Your task to perform on an android device: turn off airplane mode Image 0: 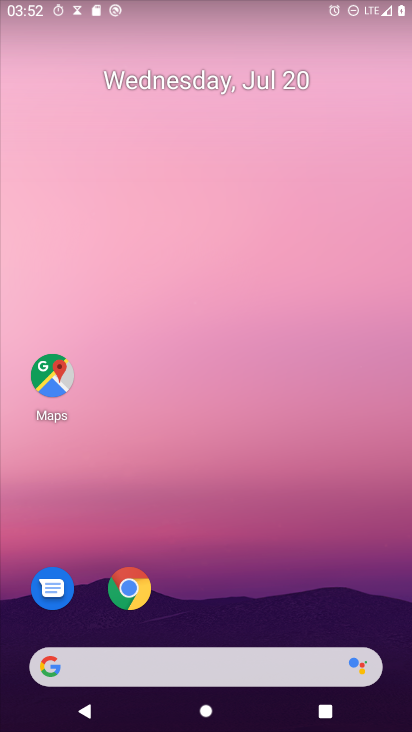
Step 0: drag from (190, 603) to (141, 60)
Your task to perform on an android device: turn off airplane mode Image 1: 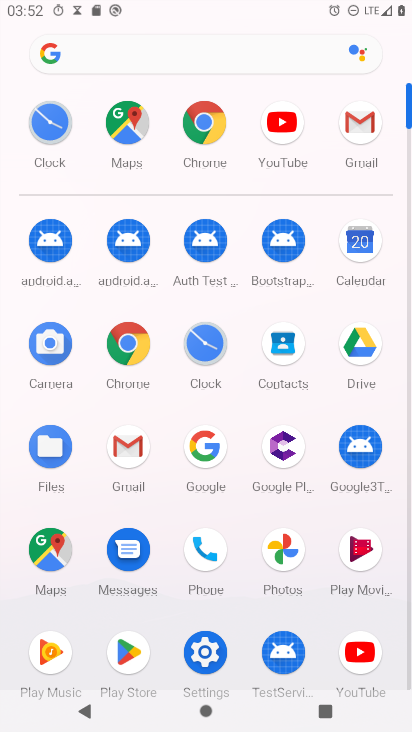
Step 1: click (207, 654)
Your task to perform on an android device: turn off airplane mode Image 2: 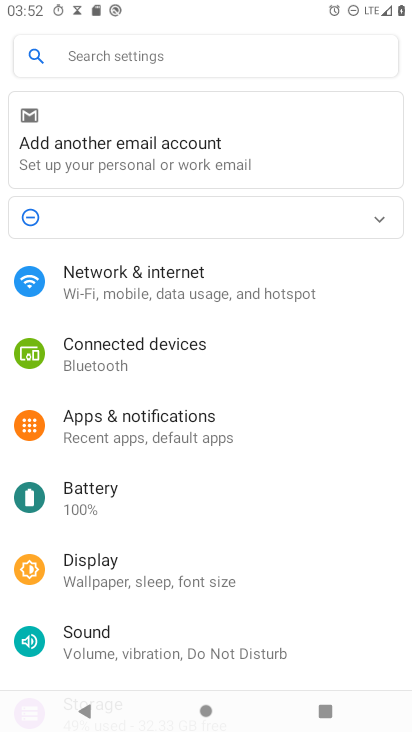
Step 2: click (186, 291)
Your task to perform on an android device: turn off airplane mode Image 3: 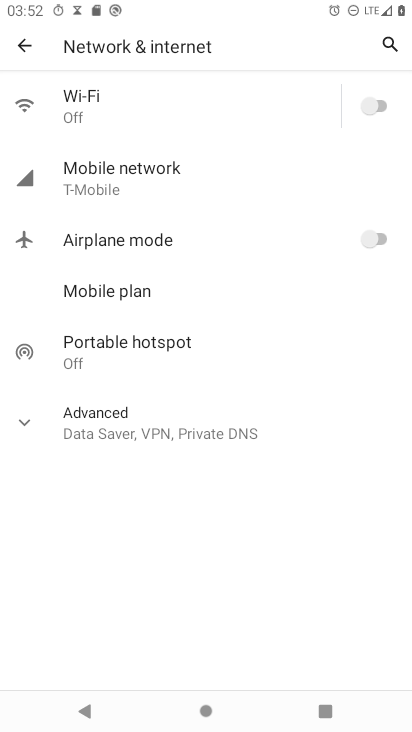
Step 3: task complete